Your task to perform on an android device: turn notification dots off Image 0: 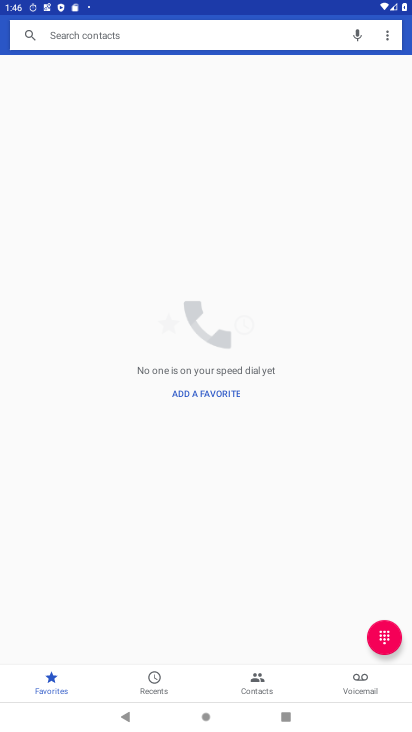
Step 0: press home button
Your task to perform on an android device: turn notification dots off Image 1: 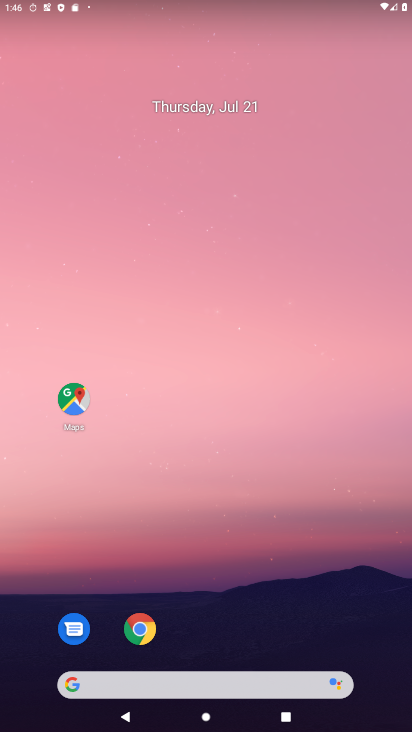
Step 1: drag from (42, 697) to (222, 186)
Your task to perform on an android device: turn notification dots off Image 2: 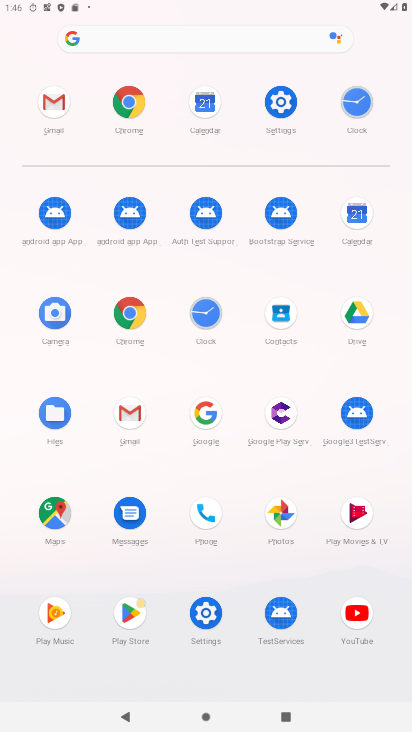
Step 2: click (204, 626)
Your task to perform on an android device: turn notification dots off Image 3: 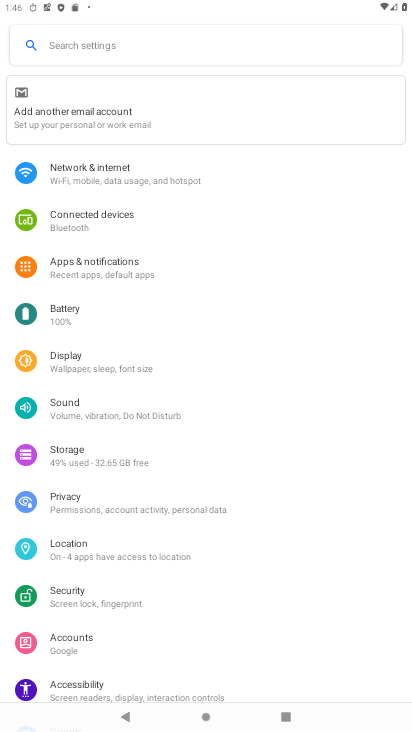
Step 3: click (112, 262)
Your task to perform on an android device: turn notification dots off Image 4: 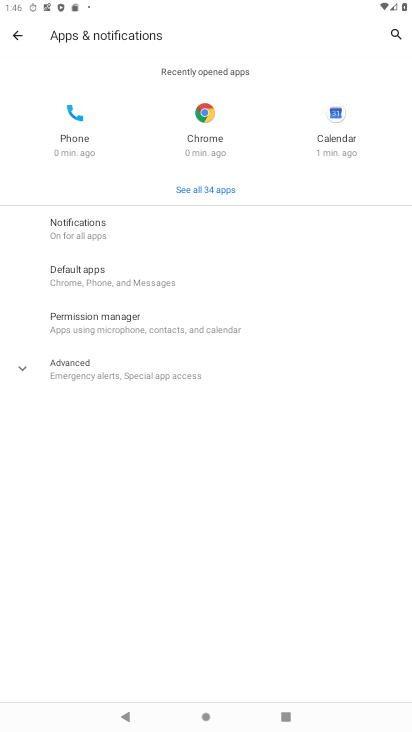
Step 4: click (100, 228)
Your task to perform on an android device: turn notification dots off Image 5: 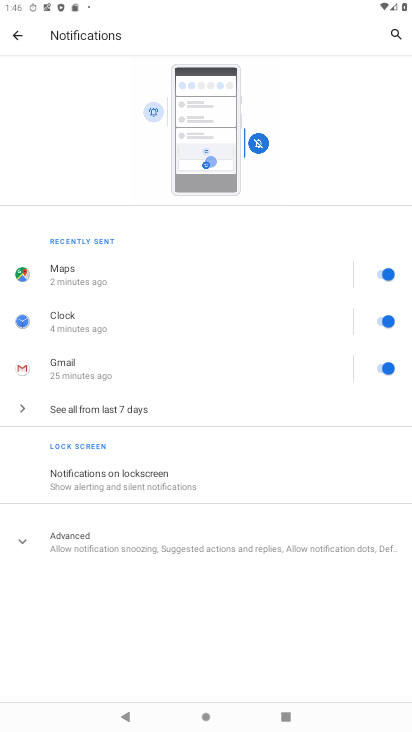
Step 5: click (115, 531)
Your task to perform on an android device: turn notification dots off Image 6: 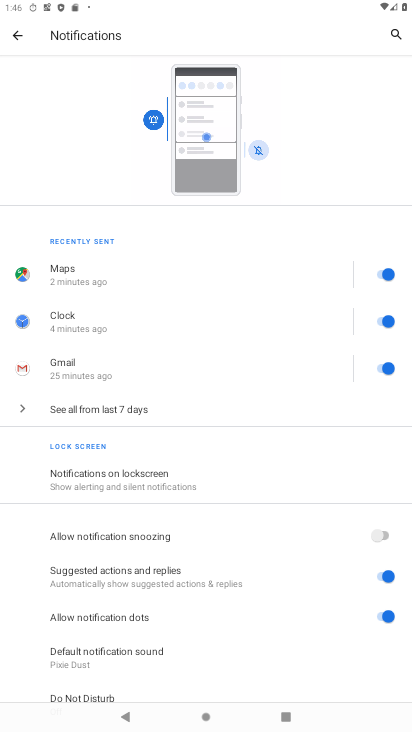
Step 6: drag from (277, 426) to (284, 384)
Your task to perform on an android device: turn notification dots off Image 7: 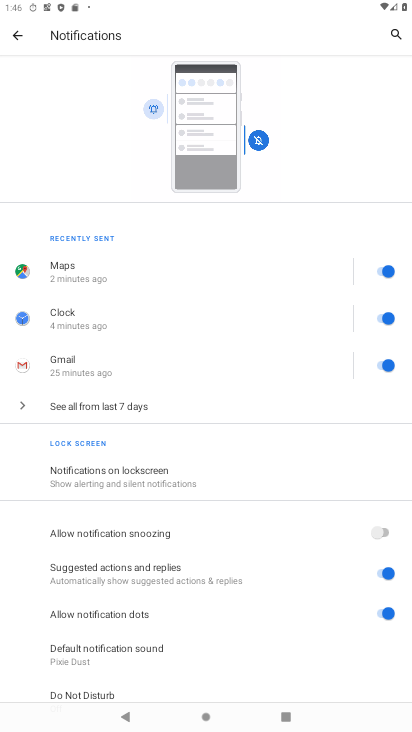
Step 7: click (385, 611)
Your task to perform on an android device: turn notification dots off Image 8: 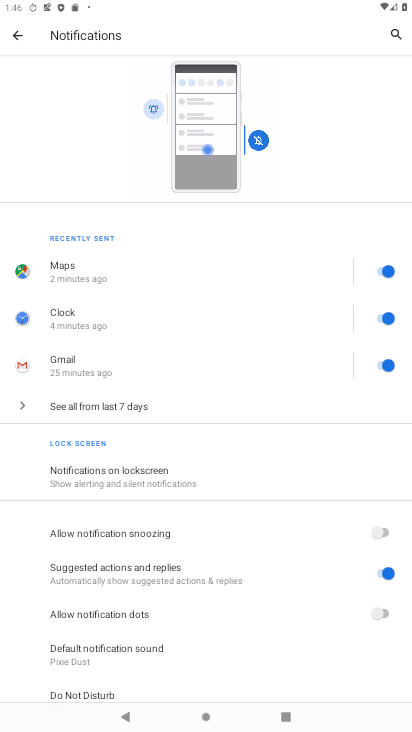
Step 8: task complete